Your task to perform on an android device: Show me recent news Image 0: 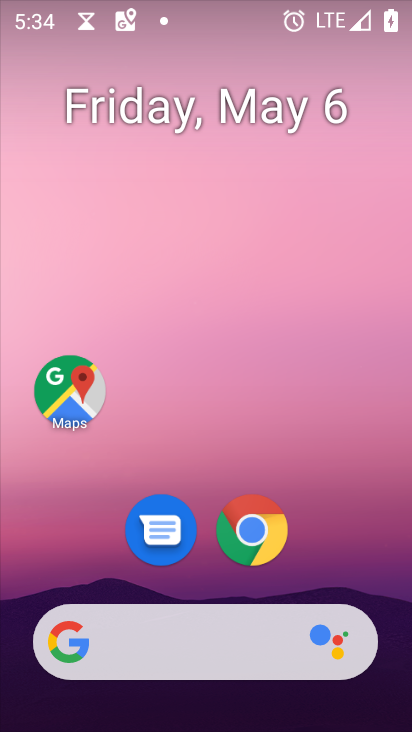
Step 0: click (70, 644)
Your task to perform on an android device: Show me recent news Image 1: 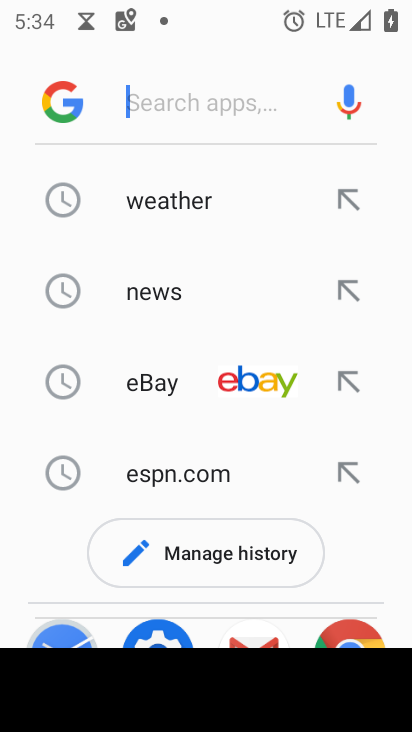
Step 1: click (191, 275)
Your task to perform on an android device: Show me recent news Image 2: 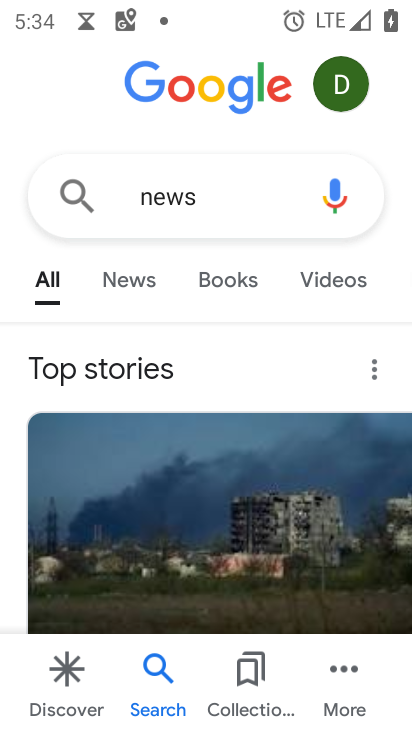
Step 2: task complete